Your task to perform on an android device: open app "DoorDash - Food Delivery" Image 0: 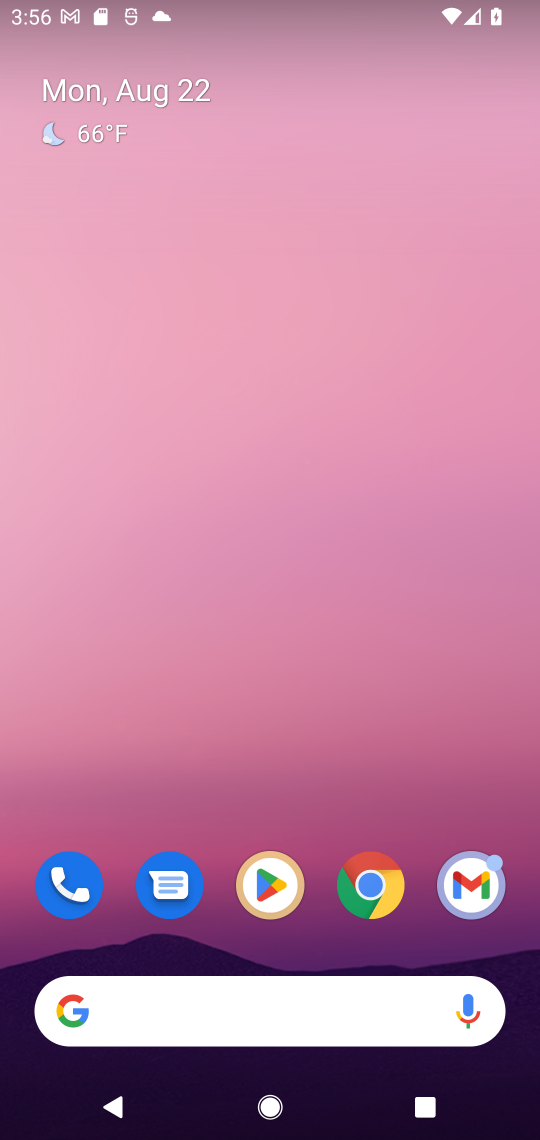
Step 0: press home button
Your task to perform on an android device: open app "DoorDash - Food Delivery" Image 1: 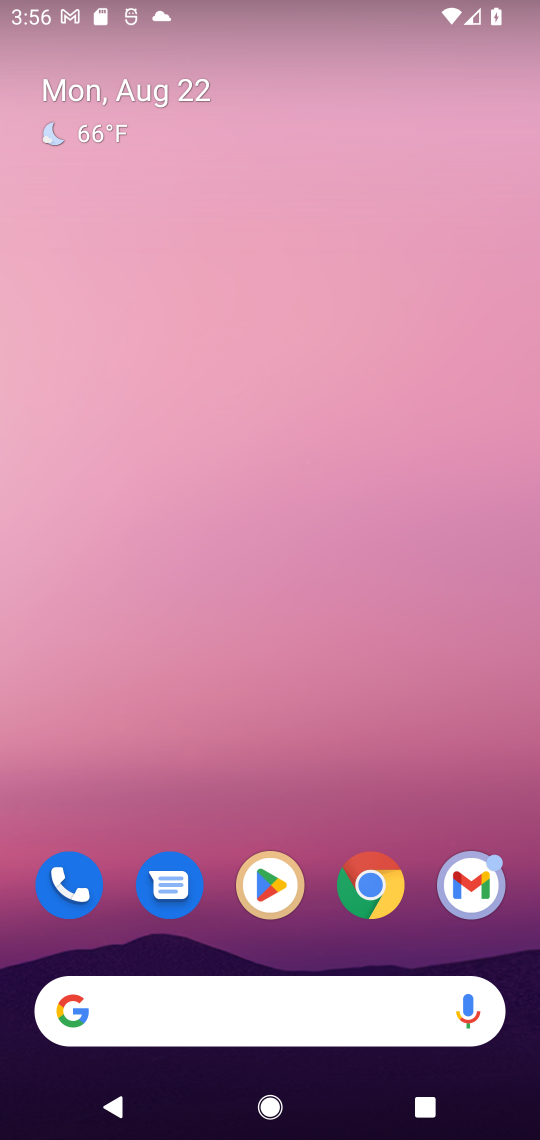
Step 1: click (269, 870)
Your task to perform on an android device: open app "DoorDash - Food Delivery" Image 2: 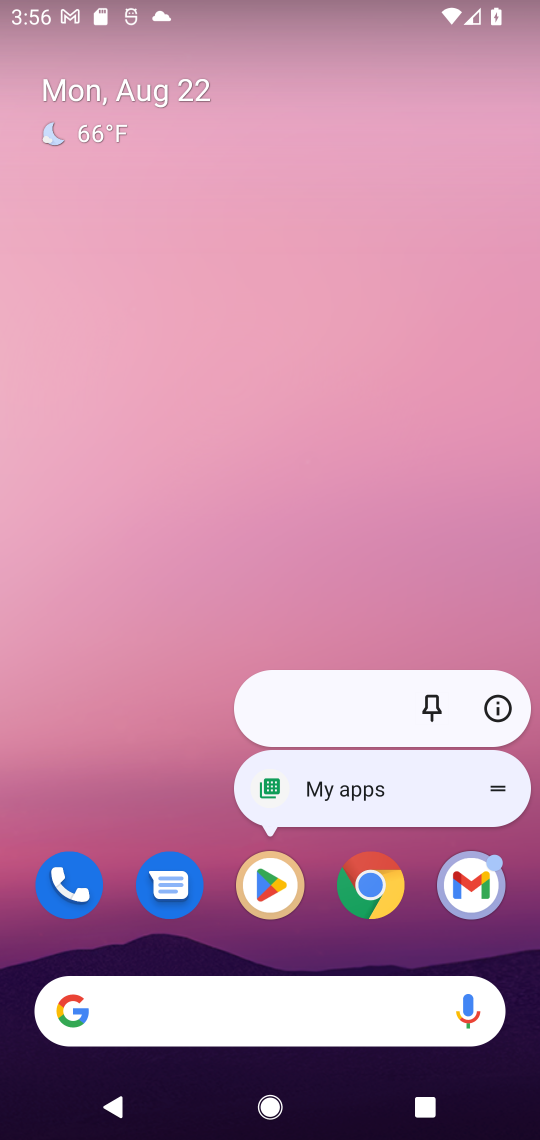
Step 2: click (262, 875)
Your task to perform on an android device: open app "DoorDash - Food Delivery" Image 3: 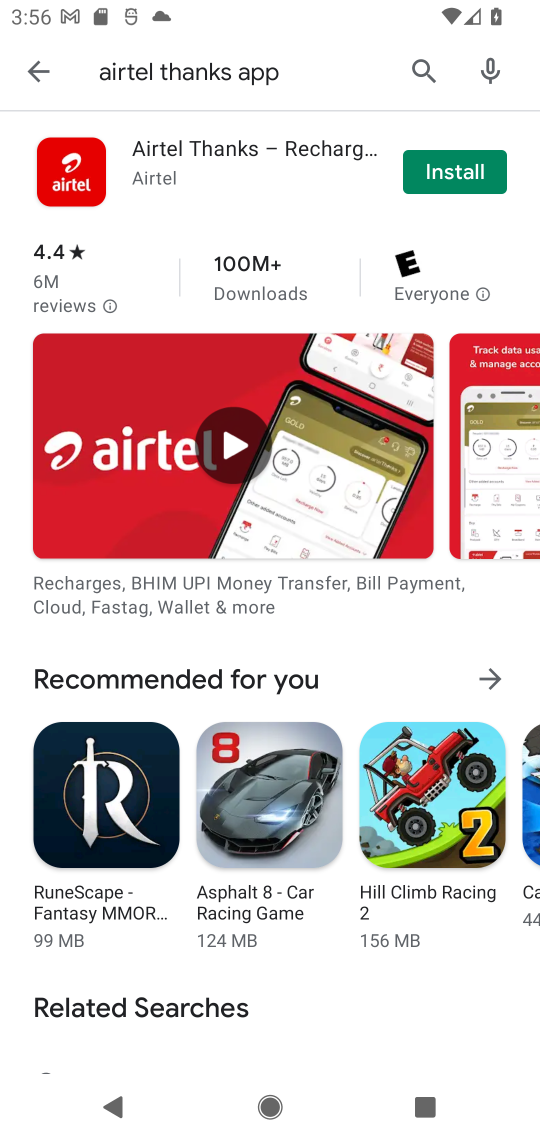
Step 3: click (424, 67)
Your task to perform on an android device: open app "DoorDash - Food Delivery" Image 4: 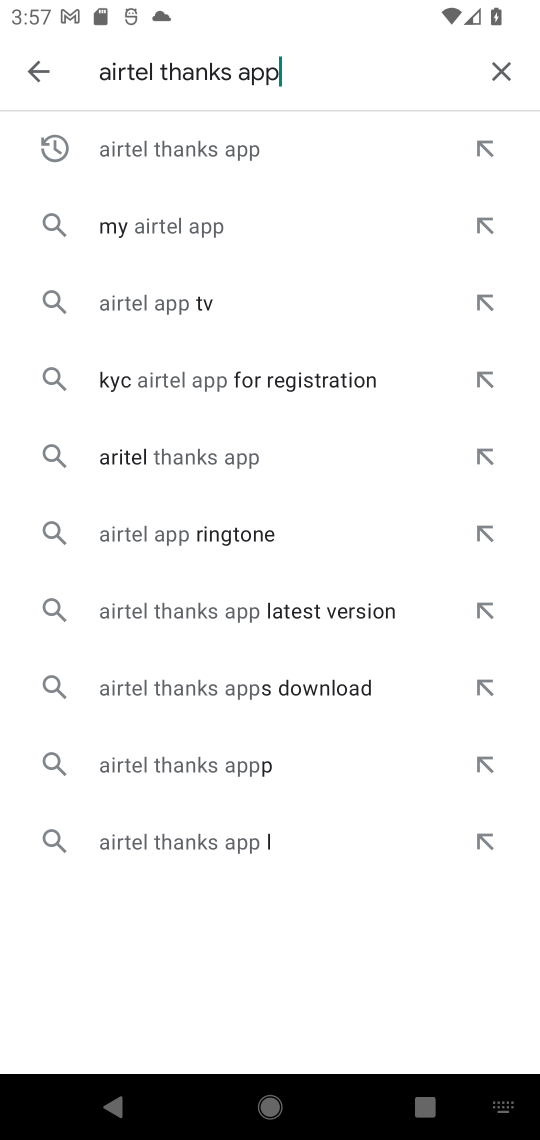
Step 4: click (490, 63)
Your task to perform on an android device: open app "DoorDash - Food Delivery" Image 5: 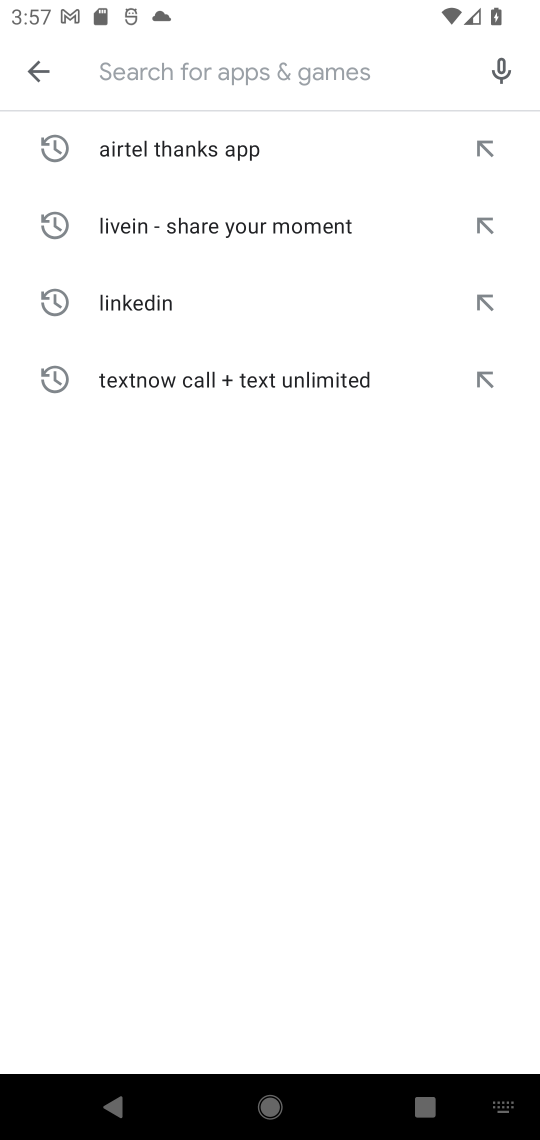
Step 5: type "DoorDash - Food Delivery"
Your task to perform on an android device: open app "DoorDash - Food Delivery" Image 6: 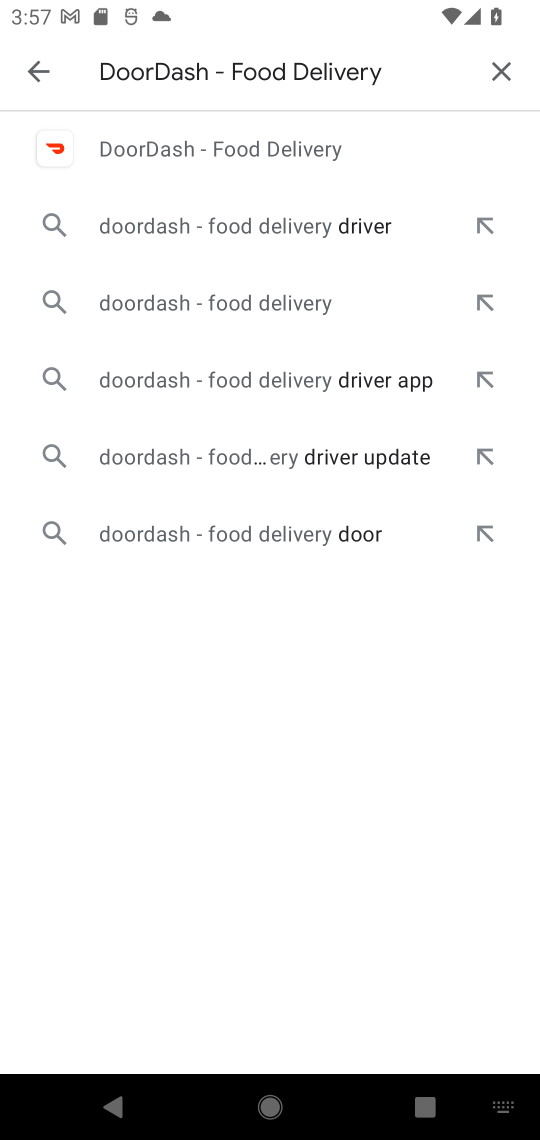
Step 6: click (207, 147)
Your task to perform on an android device: open app "DoorDash - Food Delivery" Image 7: 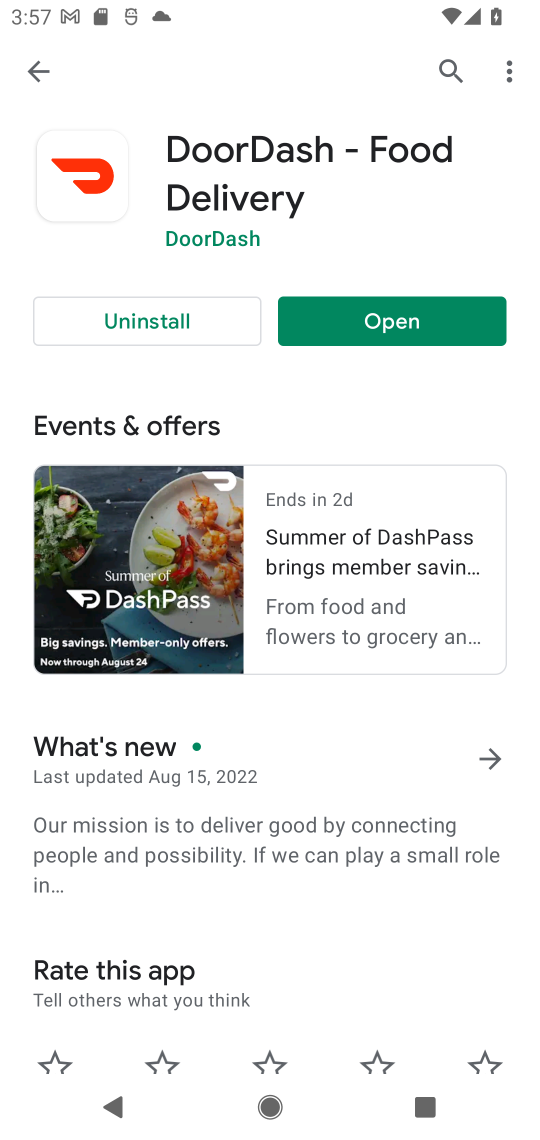
Step 7: click (402, 322)
Your task to perform on an android device: open app "DoorDash - Food Delivery" Image 8: 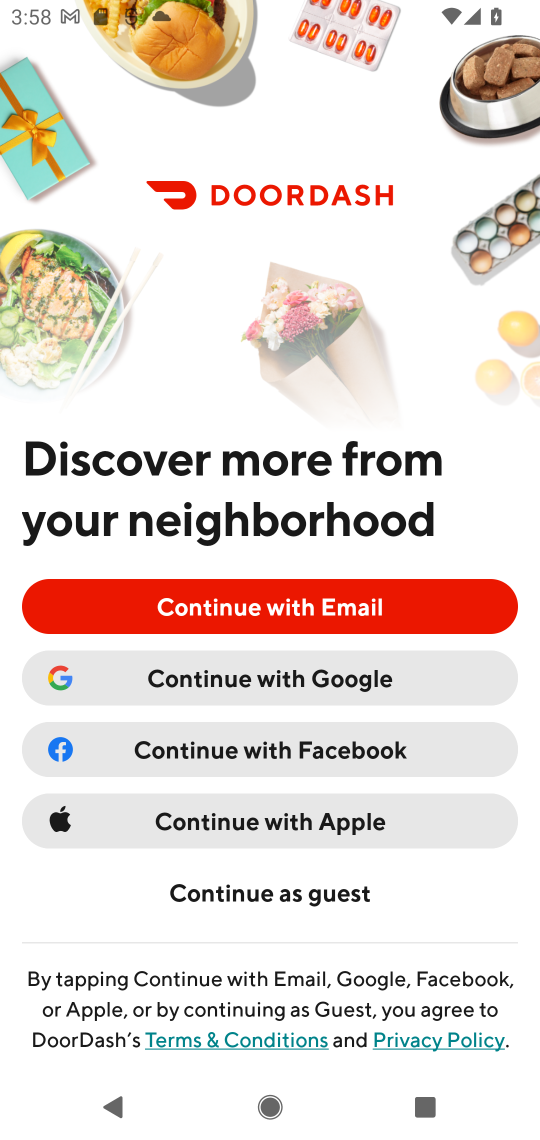
Step 8: click (262, 677)
Your task to perform on an android device: open app "DoorDash - Food Delivery" Image 9: 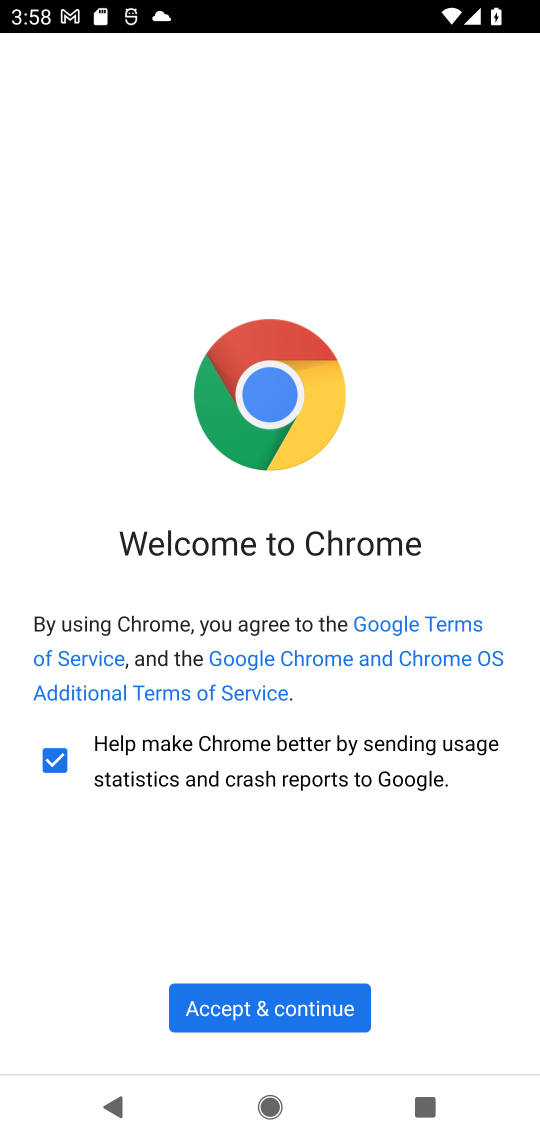
Step 9: click (269, 1007)
Your task to perform on an android device: open app "DoorDash - Food Delivery" Image 10: 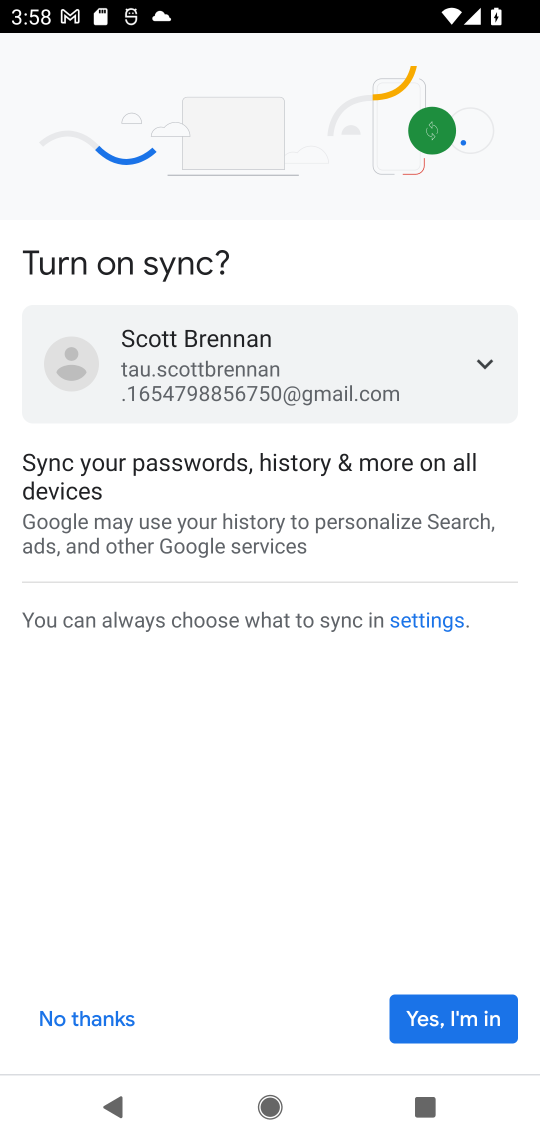
Step 10: click (448, 1007)
Your task to perform on an android device: open app "DoorDash - Food Delivery" Image 11: 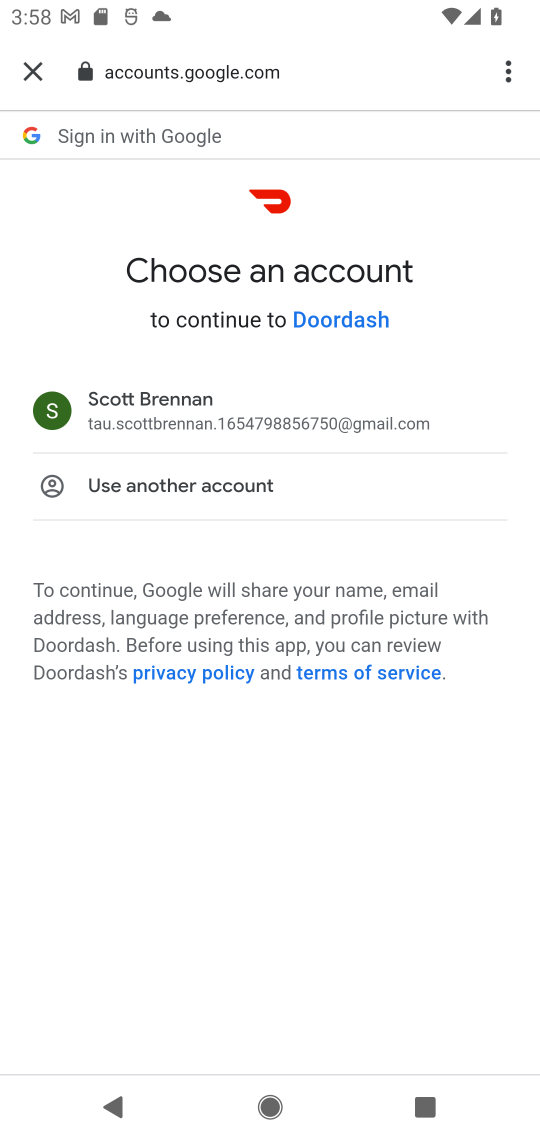
Step 11: click (225, 408)
Your task to perform on an android device: open app "DoorDash - Food Delivery" Image 12: 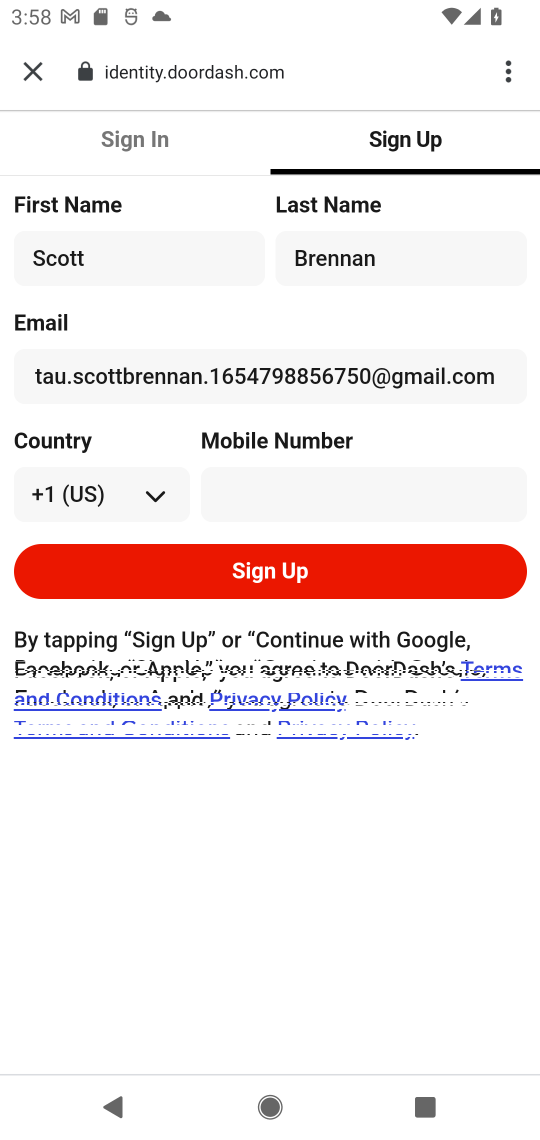
Step 12: task complete